Your task to perform on an android device: toggle priority inbox in the gmail app Image 0: 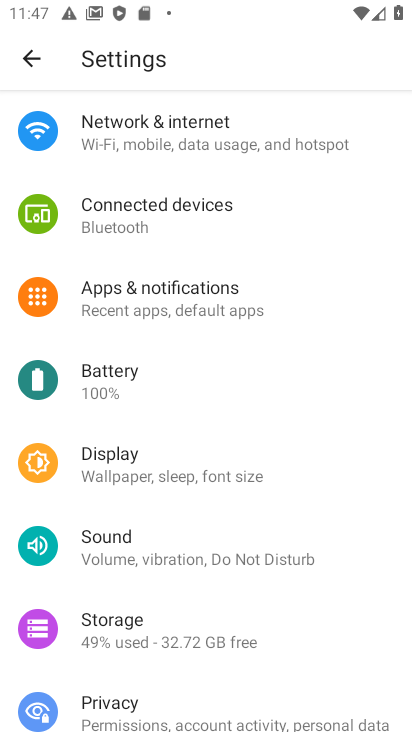
Step 0: press home button
Your task to perform on an android device: toggle priority inbox in the gmail app Image 1: 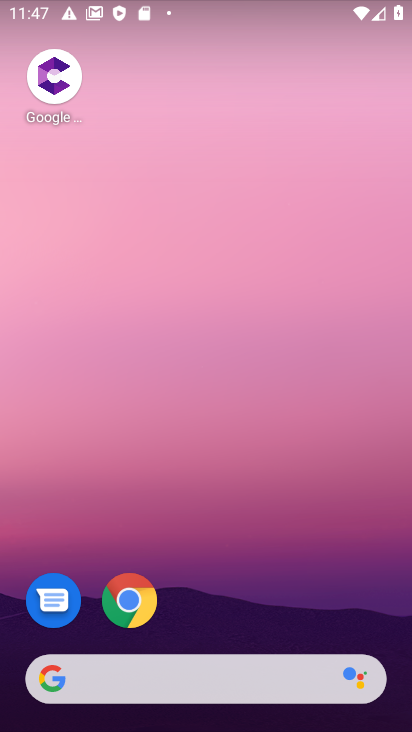
Step 1: drag from (219, 522) to (233, 175)
Your task to perform on an android device: toggle priority inbox in the gmail app Image 2: 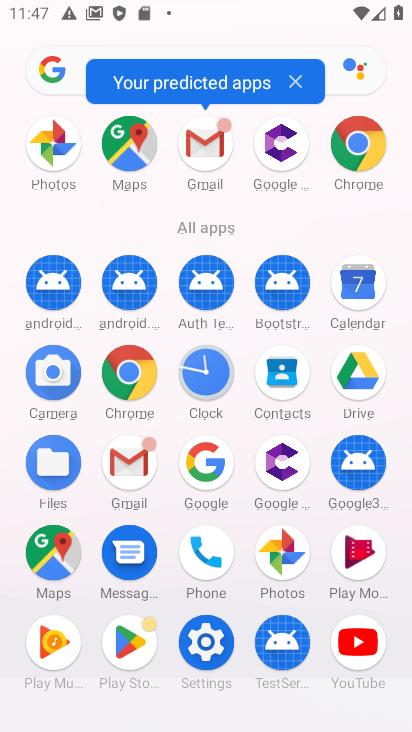
Step 2: click (198, 175)
Your task to perform on an android device: toggle priority inbox in the gmail app Image 3: 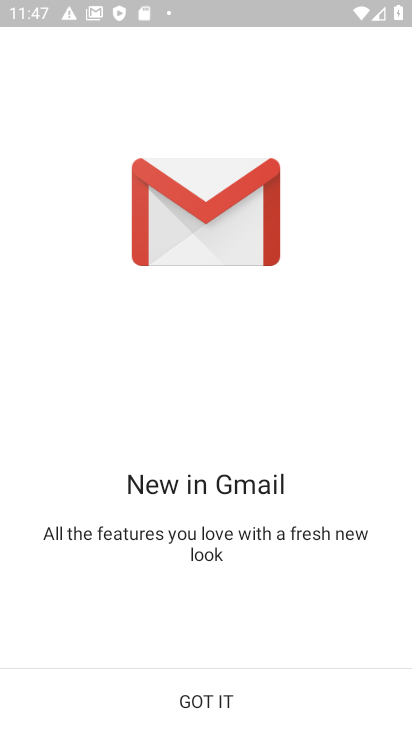
Step 3: click (233, 686)
Your task to perform on an android device: toggle priority inbox in the gmail app Image 4: 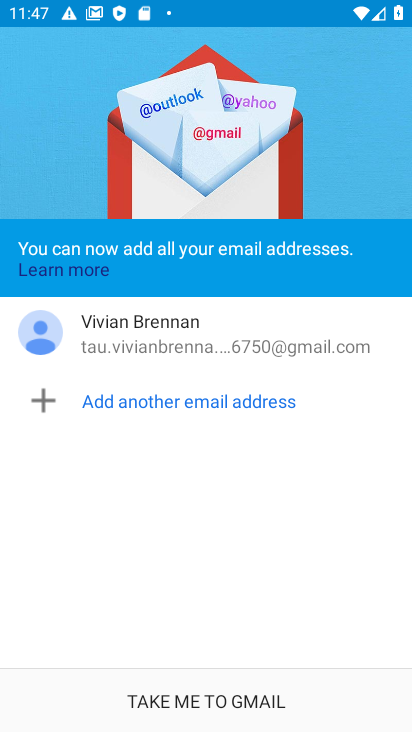
Step 4: click (216, 700)
Your task to perform on an android device: toggle priority inbox in the gmail app Image 5: 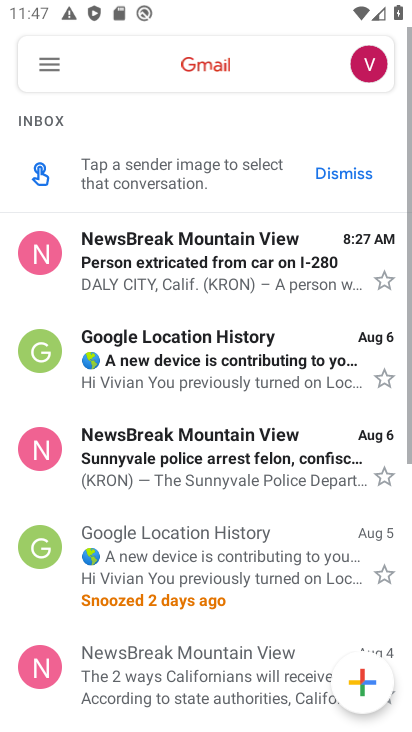
Step 5: click (62, 67)
Your task to perform on an android device: toggle priority inbox in the gmail app Image 6: 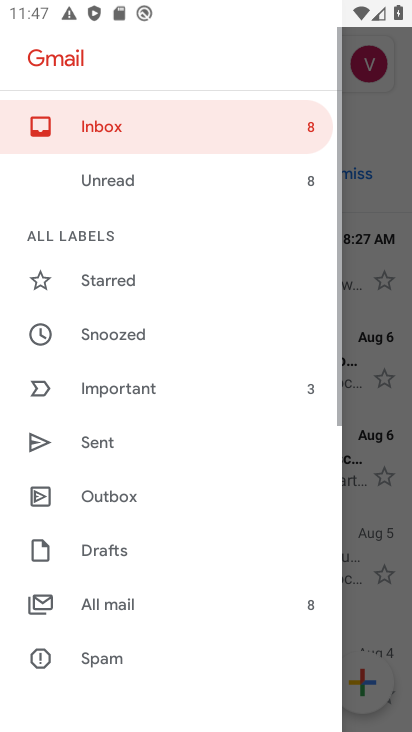
Step 6: drag from (171, 312) to (171, 248)
Your task to perform on an android device: toggle priority inbox in the gmail app Image 7: 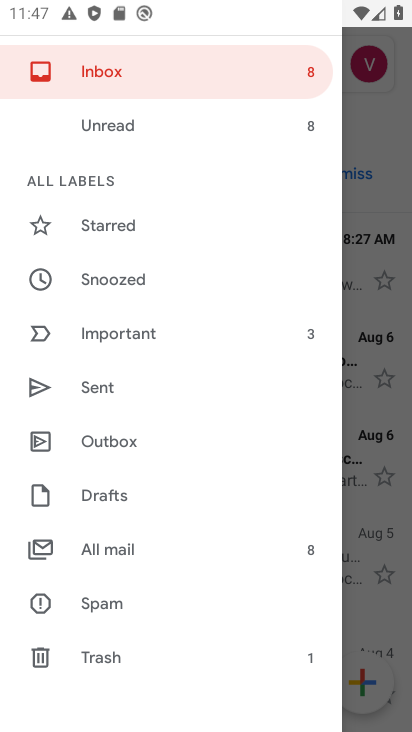
Step 7: drag from (130, 621) to (125, 250)
Your task to perform on an android device: toggle priority inbox in the gmail app Image 8: 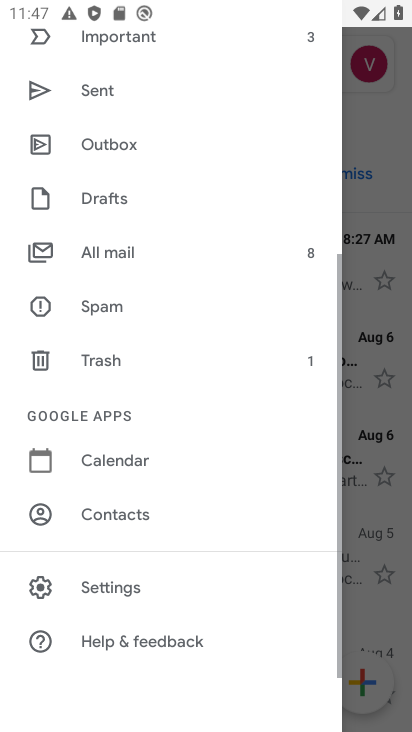
Step 8: click (143, 601)
Your task to perform on an android device: toggle priority inbox in the gmail app Image 9: 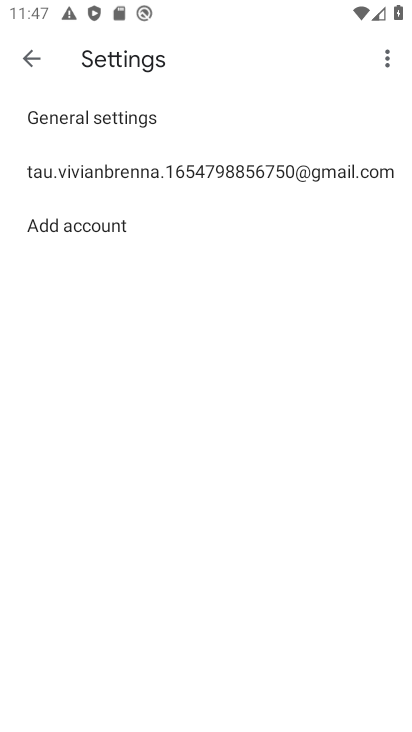
Step 9: click (105, 182)
Your task to perform on an android device: toggle priority inbox in the gmail app Image 10: 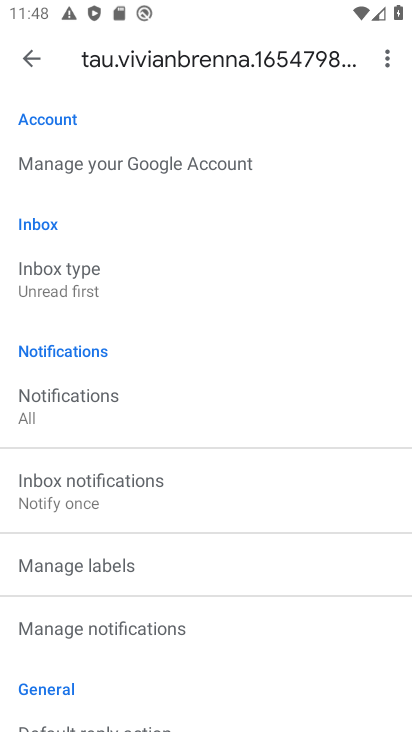
Step 10: click (114, 292)
Your task to perform on an android device: toggle priority inbox in the gmail app Image 11: 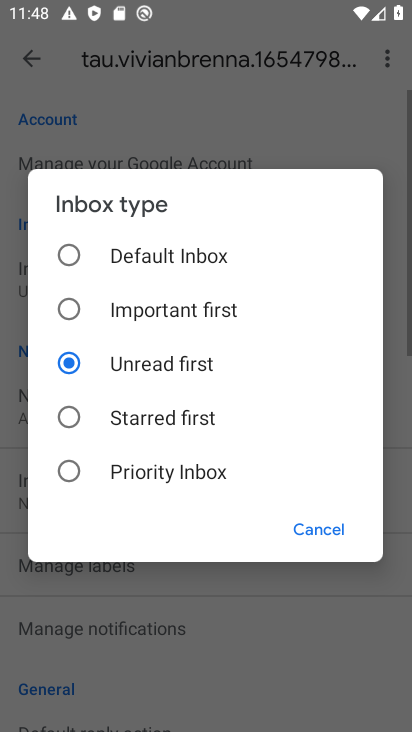
Step 11: click (139, 484)
Your task to perform on an android device: toggle priority inbox in the gmail app Image 12: 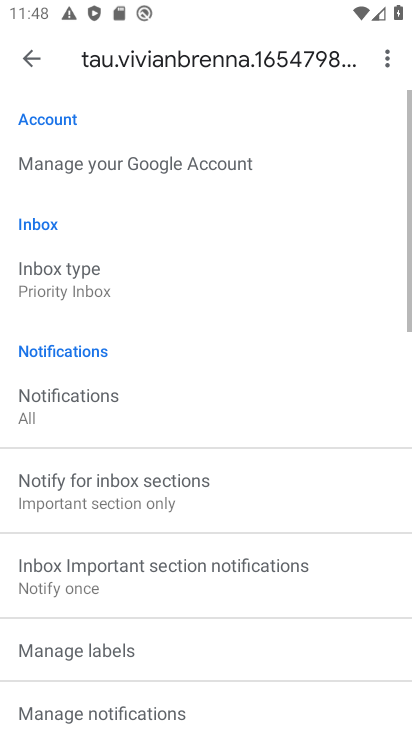
Step 12: task complete